Your task to perform on an android device: turn on priority inbox in the gmail app Image 0: 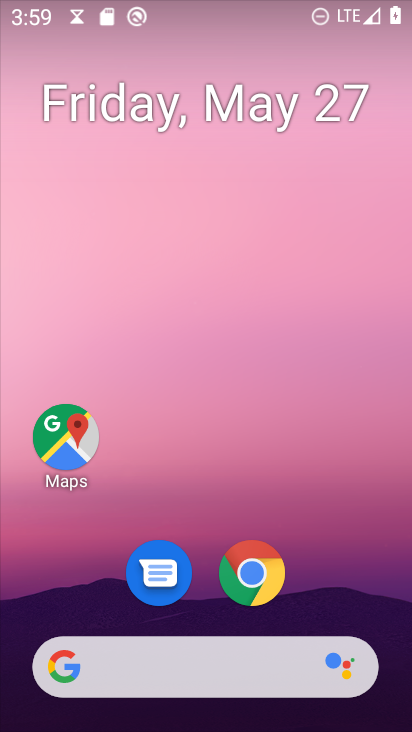
Step 0: drag from (305, 612) to (330, 24)
Your task to perform on an android device: turn on priority inbox in the gmail app Image 1: 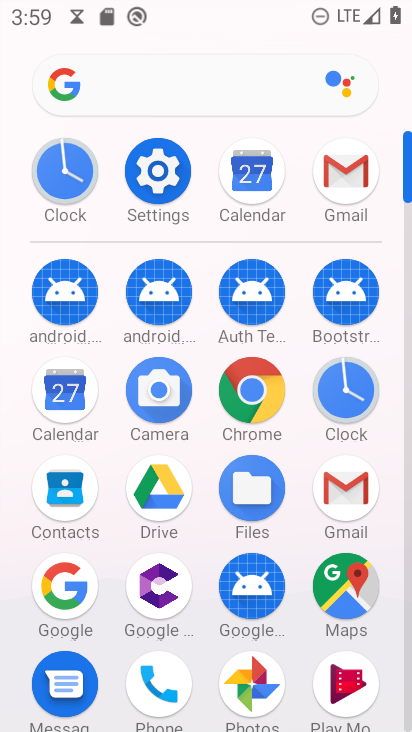
Step 1: click (347, 168)
Your task to perform on an android device: turn on priority inbox in the gmail app Image 2: 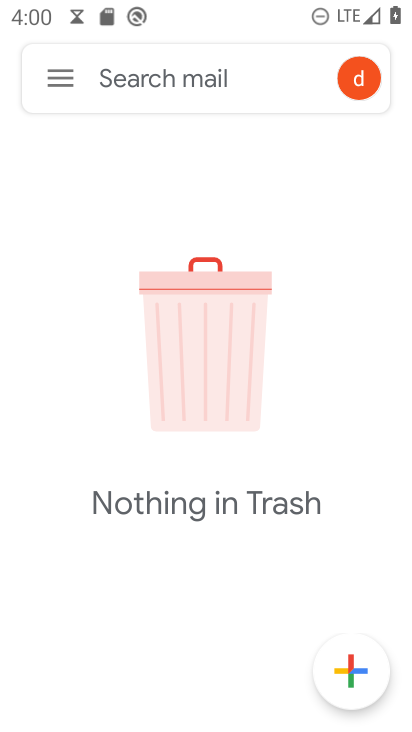
Step 2: click (54, 89)
Your task to perform on an android device: turn on priority inbox in the gmail app Image 3: 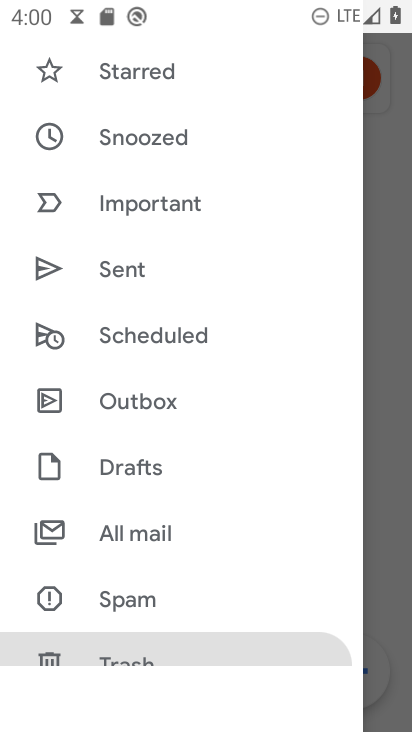
Step 3: drag from (184, 634) to (249, 164)
Your task to perform on an android device: turn on priority inbox in the gmail app Image 4: 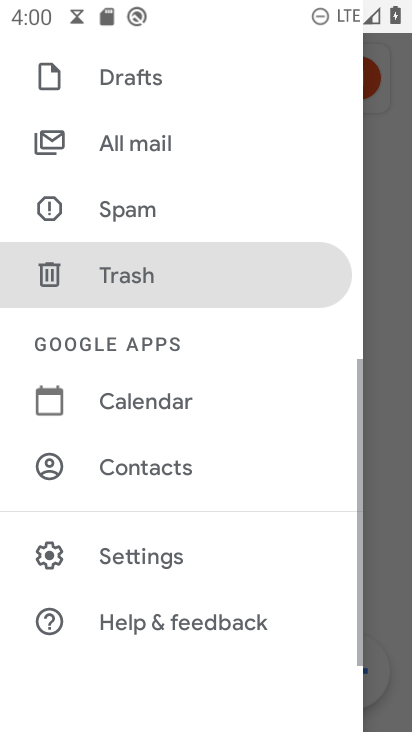
Step 4: click (164, 557)
Your task to perform on an android device: turn on priority inbox in the gmail app Image 5: 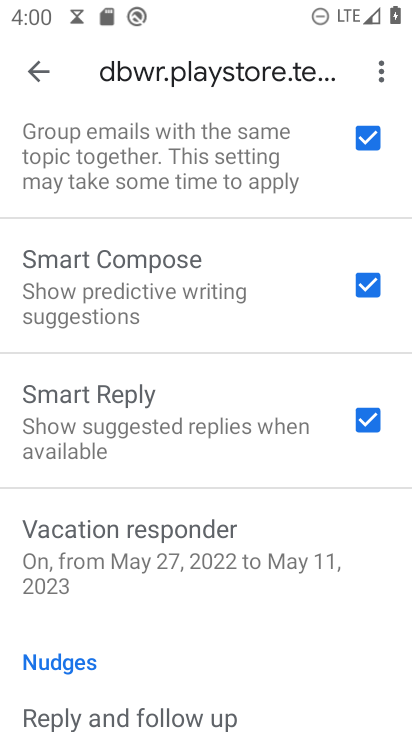
Step 5: drag from (177, 235) to (164, 728)
Your task to perform on an android device: turn on priority inbox in the gmail app Image 6: 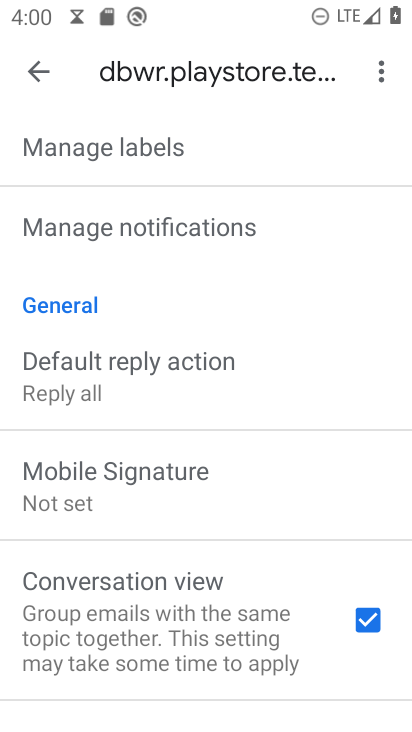
Step 6: drag from (162, 270) to (160, 611)
Your task to perform on an android device: turn on priority inbox in the gmail app Image 7: 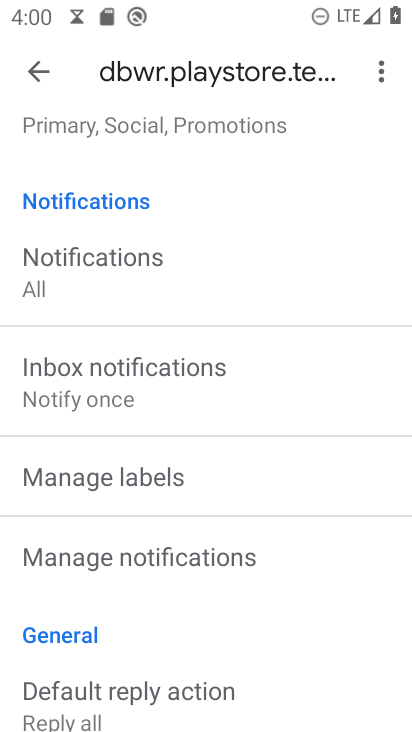
Step 7: drag from (162, 267) to (222, 656)
Your task to perform on an android device: turn on priority inbox in the gmail app Image 8: 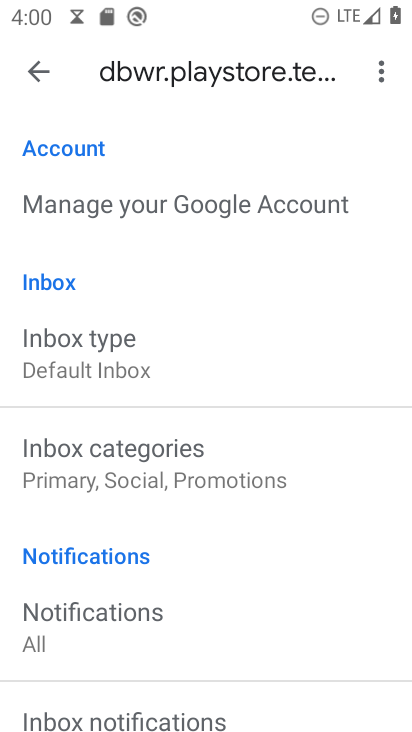
Step 8: click (142, 370)
Your task to perform on an android device: turn on priority inbox in the gmail app Image 9: 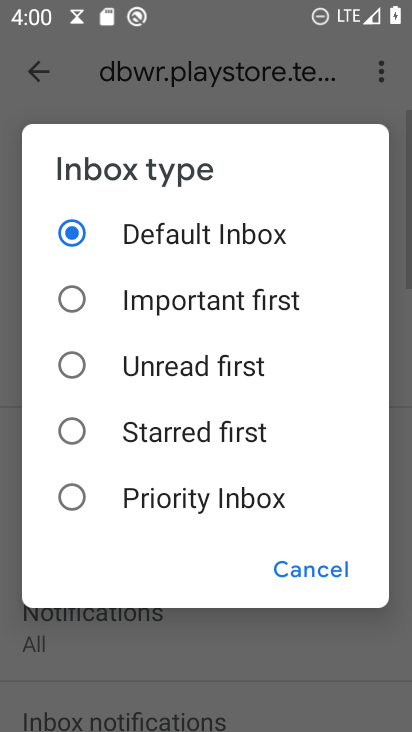
Step 9: click (133, 483)
Your task to perform on an android device: turn on priority inbox in the gmail app Image 10: 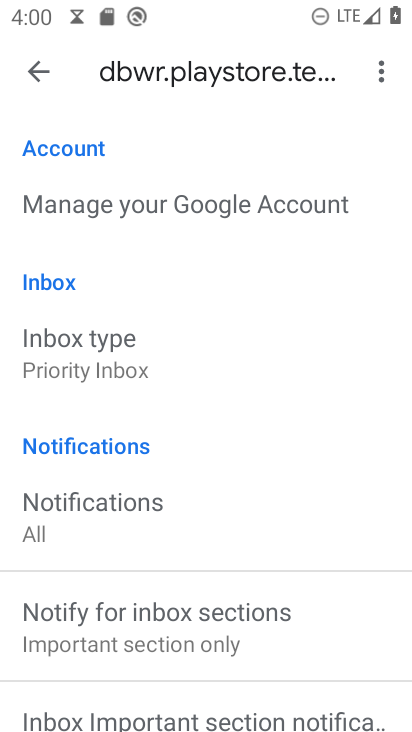
Step 10: task complete